Your task to perform on an android device: Google the capital of Argentina Image 0: 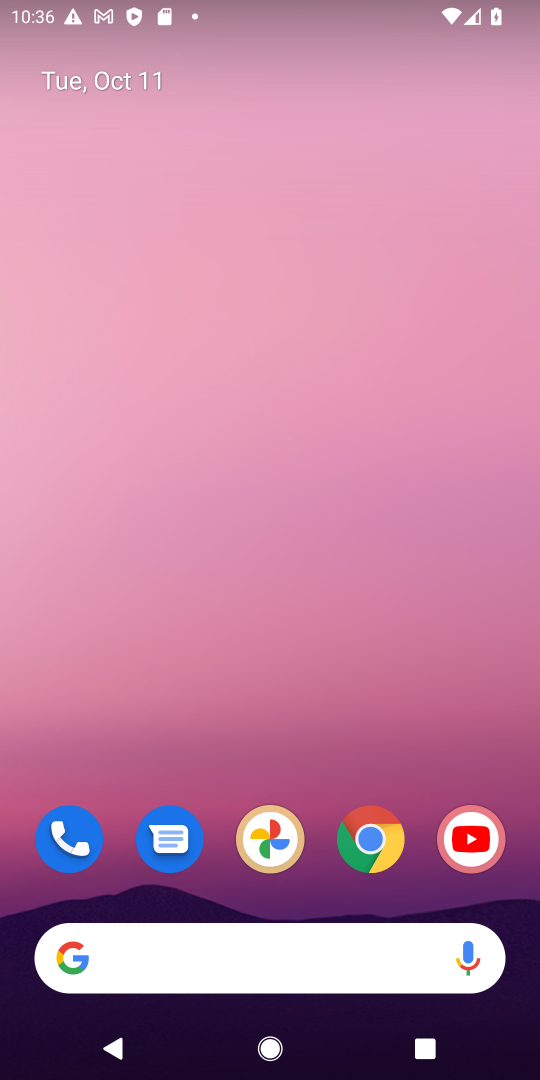
Step 0: drag from (266, 512) to (331, 29)
Your task to perform on an android device: Google the capital of Argentina Image 1: 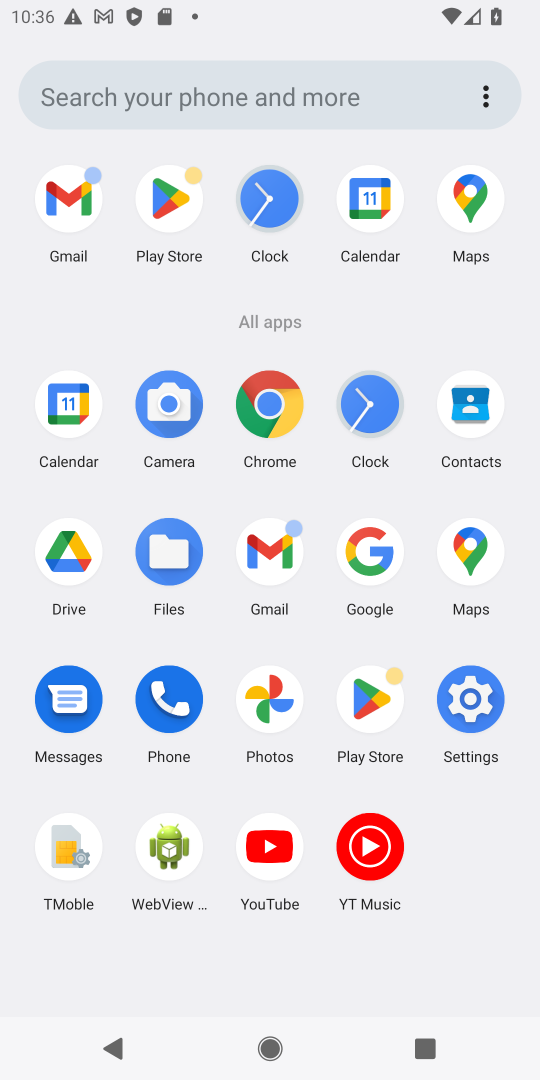
Step 1: drag from (393, 1078) to (517, 591)
Your task to perform on an android device: Google the capital of Argentina Image 2: 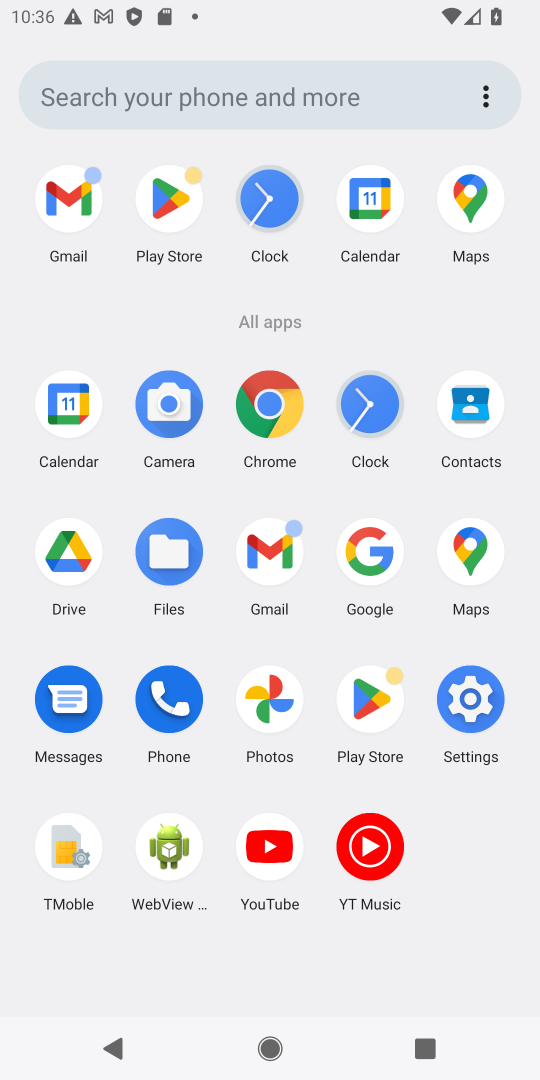
Step 2: click (384, 589)
Your task to perform on an android device: Google the capital of Argentina Image 3: 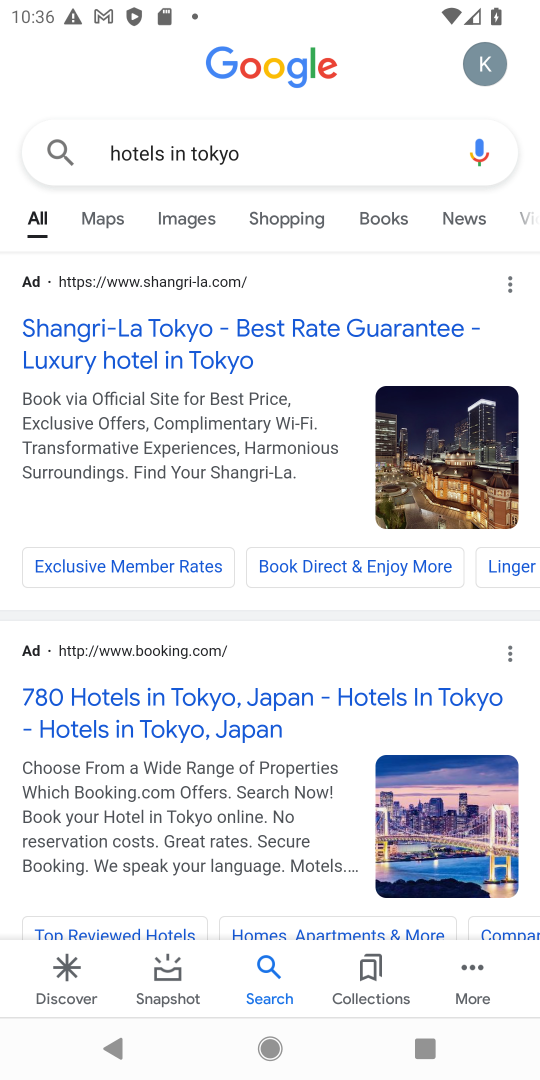
Step 3: click (329, 168)
Your task to perform on an android device: Google the capital of Argentina Image 4: 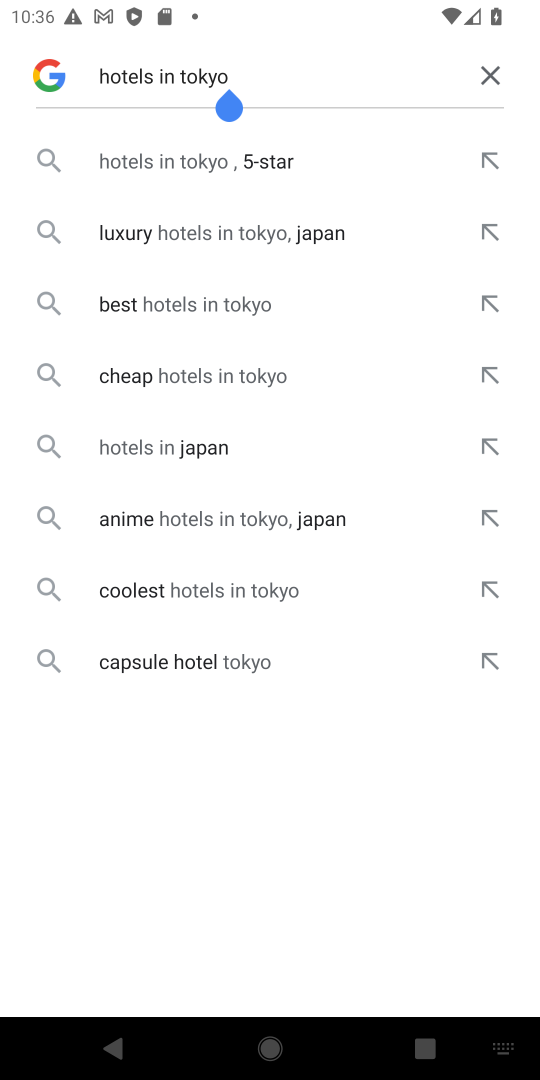
Step 4: click (492, 80)
Your task to perform on an android device: Google the capital of Argentina Image 5: 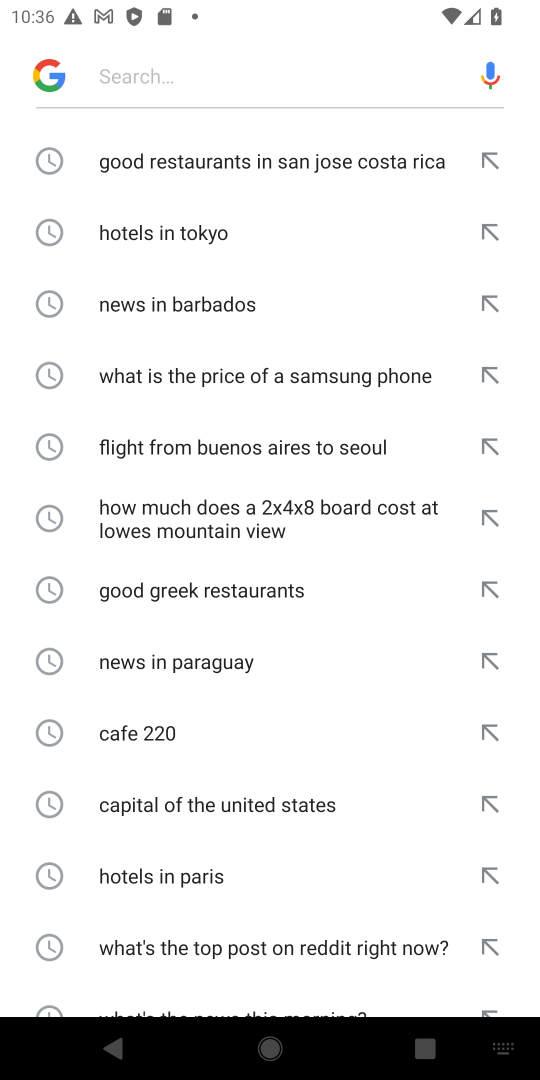
Step 5: drag from (431, 12) to (449, 459)
Your task to perform on an android device: Google the capital of Argentina Image 6: 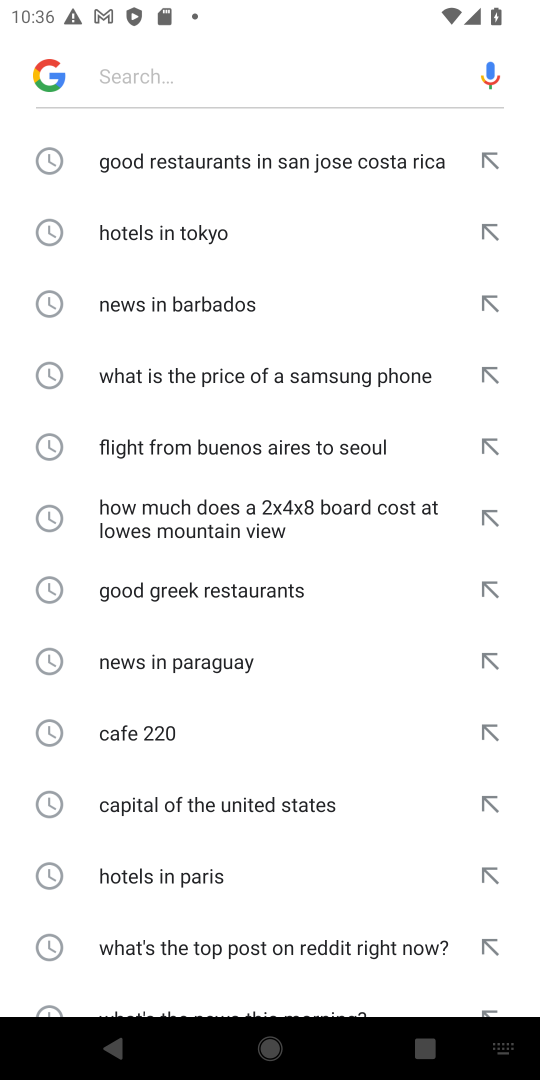
Step 6: type "capital of Argentina"
Your task to perform on an android device: Google the capital of Argentina Image 7: 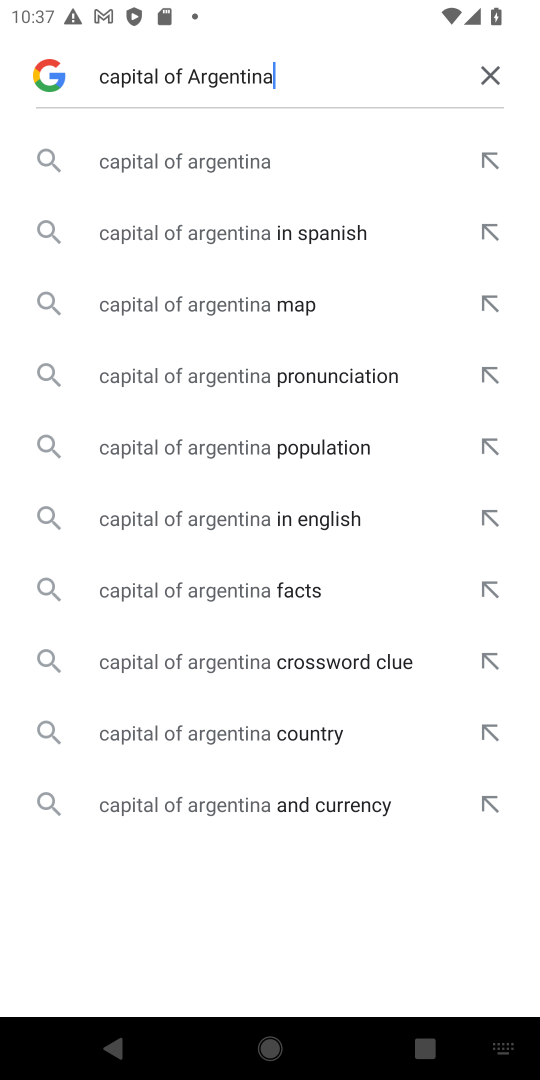
Step 7: click (279, 154)
Your task to perform on an android device: Google the capital of Argentina Image 8: 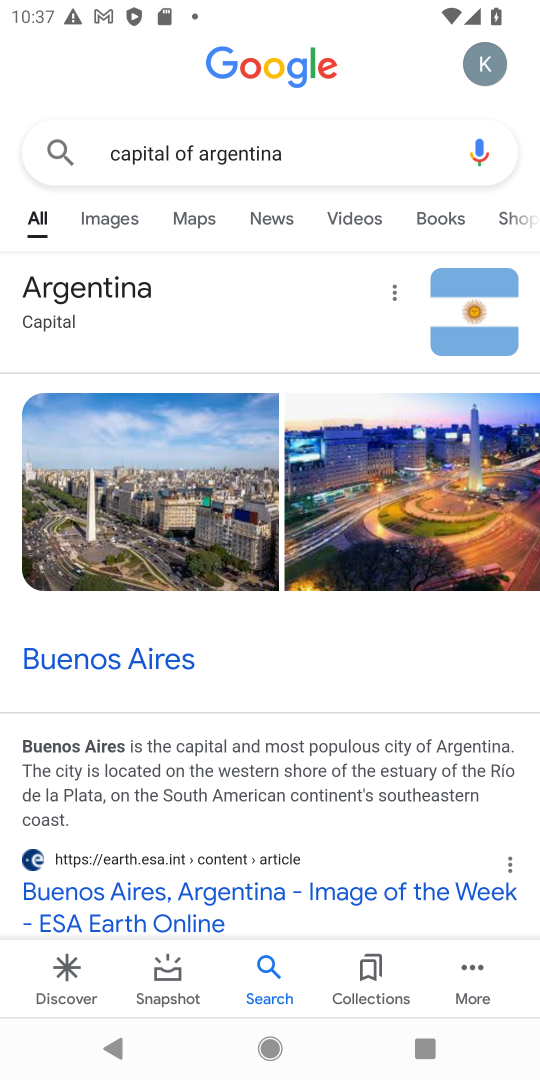
Step 8: task complete